Your task to perform on an android device: turn off improve location accuracy Image 0: 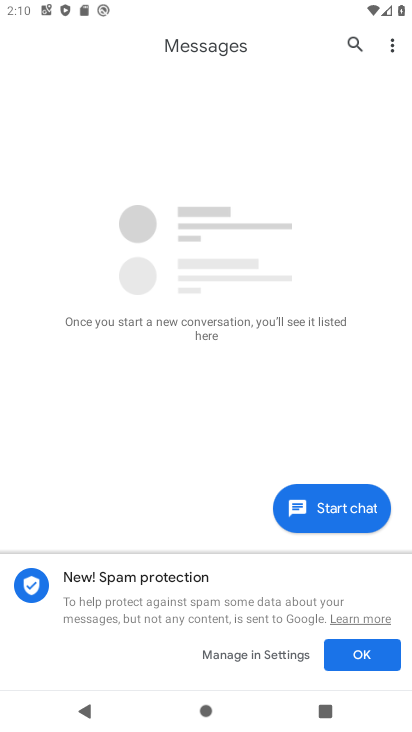
Step 0: press back button
Your task to perform on an android device: turn off improve location accuracy Image 1: 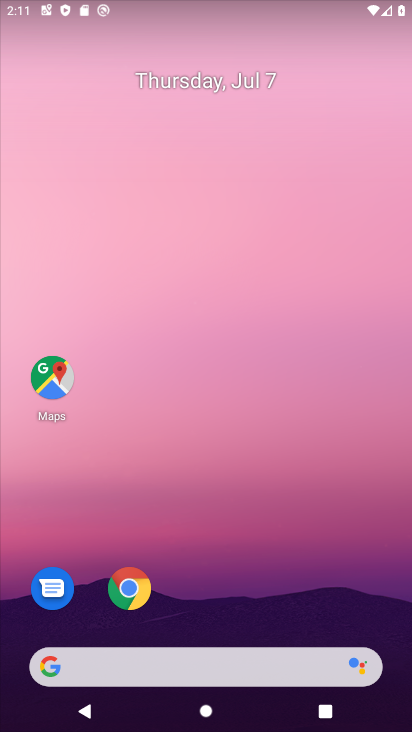
Step 1: drag from (204, 594) to (270, 25)
Your task to perform on an android device: turn off improve location accuracy Image 2: 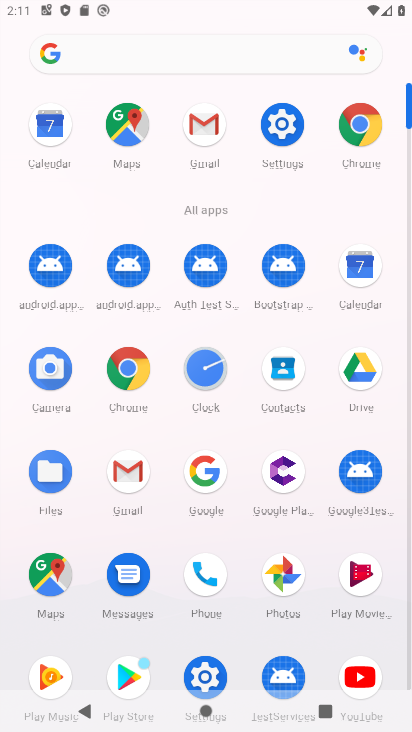
Step 2: click (280, 126)
Your task to perform on an android device: turn off improve location accuracy Image 3: 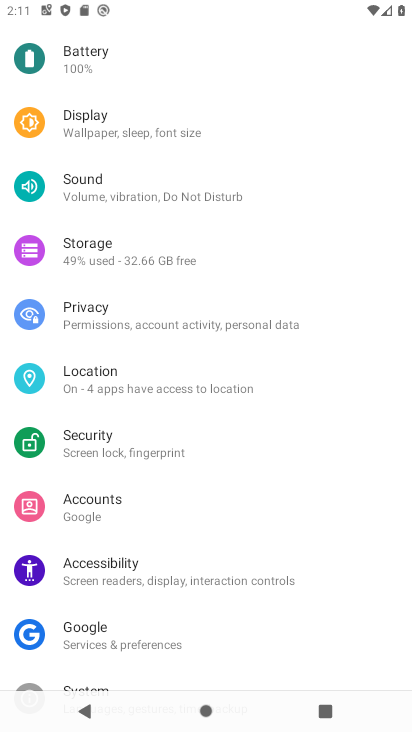
Step 3: click (111, 376)
Your task to perform on an android device: turn off improve location accuracy Image 4: 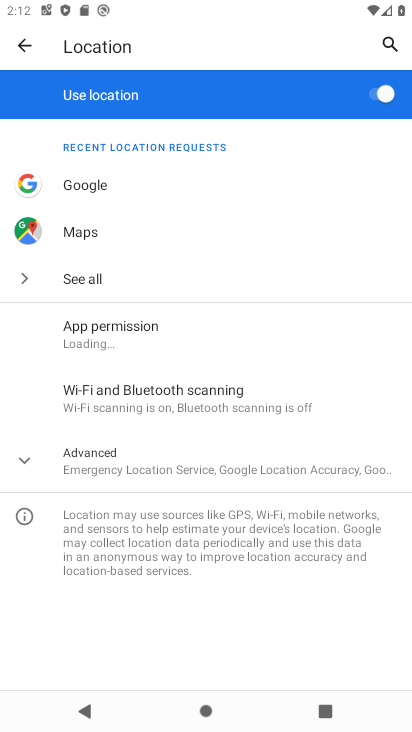
Step 4: click (104, 456)
Your task to perform on an android device: turn off improve location accuracy Image 5: 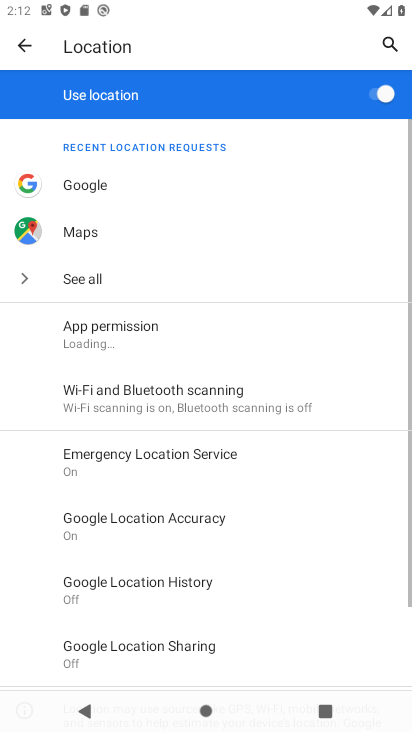
Step 5: click (168, 511)
Your task to perform on an android device: turn off improve location accuracy Image 6: 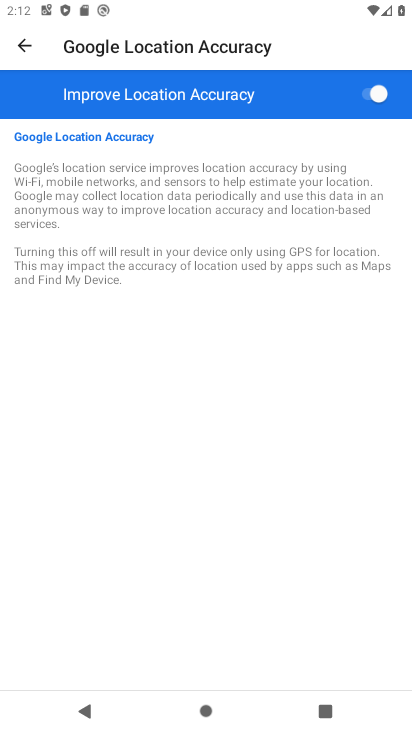
Step 6: click (378, 98)
Your task to perform on an android device: turn off improve location accuracy Image 7: 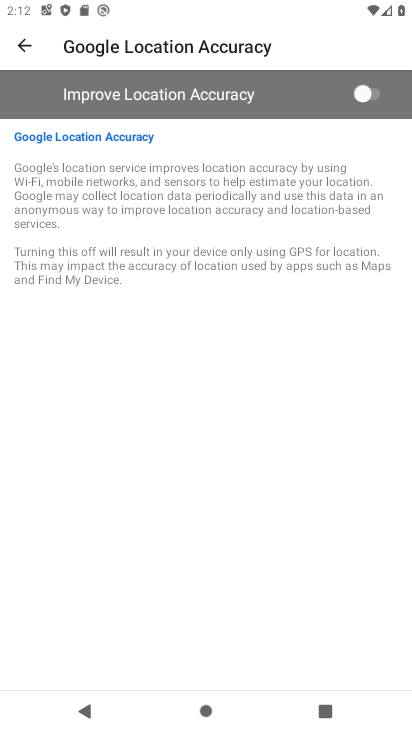
Step 7: task complete